Your task to perform on an android device: open a bookmark in the chrome app Image 0: 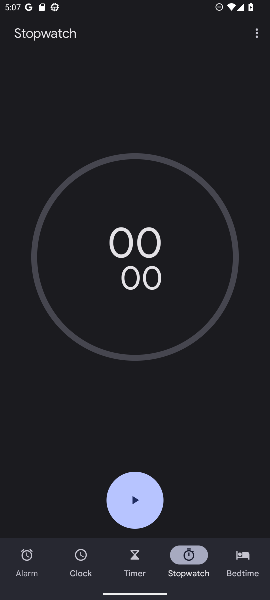
Step 0: drag from (157, 576) to (268, 294)
Your task to perform on an android device: open a bookmark in the chrome app Image 1: 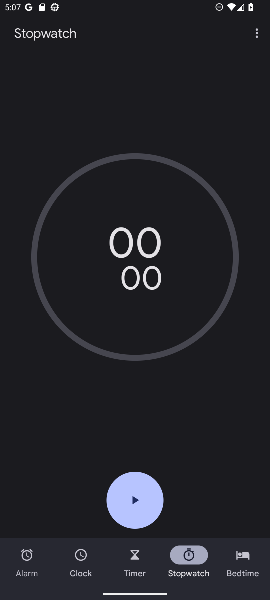
Step 1: press home button
Your task to perform on an android device: open a bookmark in the chrome app Image 2: 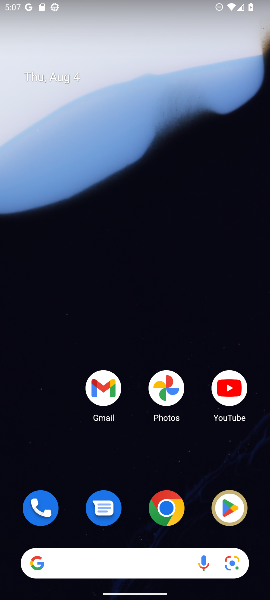
Step 2: click (157, 488)
Your task to perform on an android device: open a bookmark in the chrome app Image 3: 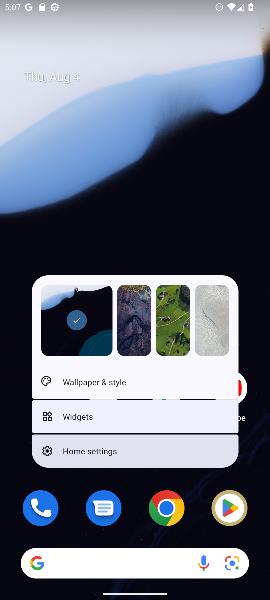
Step 3: click (168, 498)
Your task to perform on an android device: open a bookmark in the chrome app Image 4: 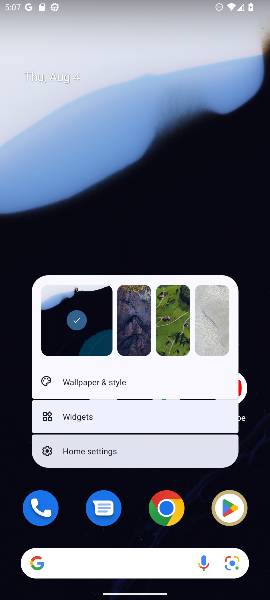
Step 4: click (168, 500)
Your task to perform on an android device: open a bookmark in the chrome app Image 5: 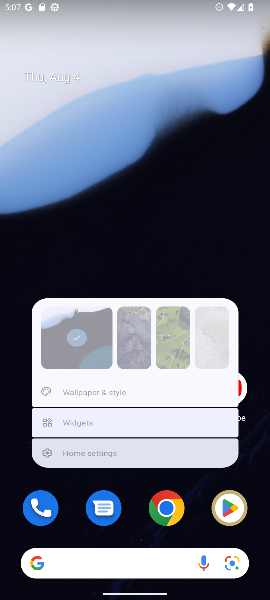
Step 5: click (168, 501)
Your task to perform on an android device: open a bookmark in the chrome app Image 6: 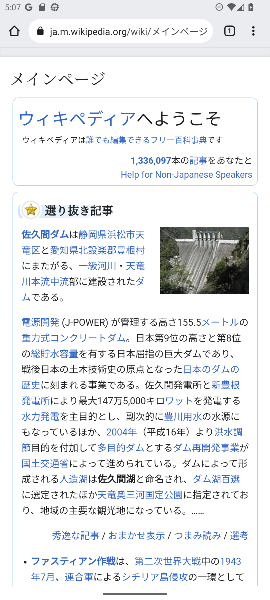
Step 6: task complete